Your task to perform on an android device: Search for hotels in Mexico city Image 0: 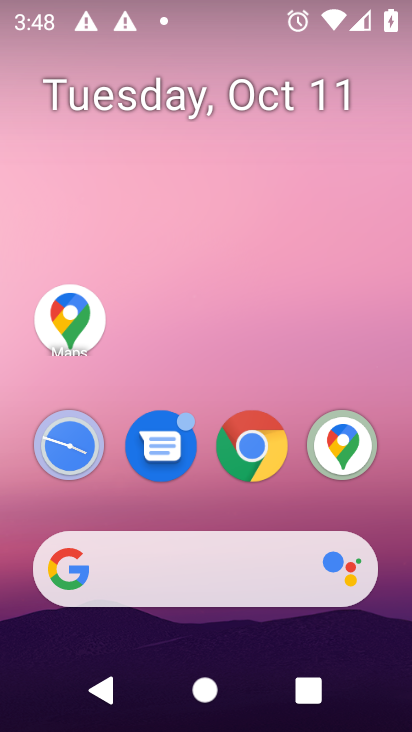
Step 0: click (256, 458)
Your task to perform on an android device: Search for hotels in Mexico city Image 1: 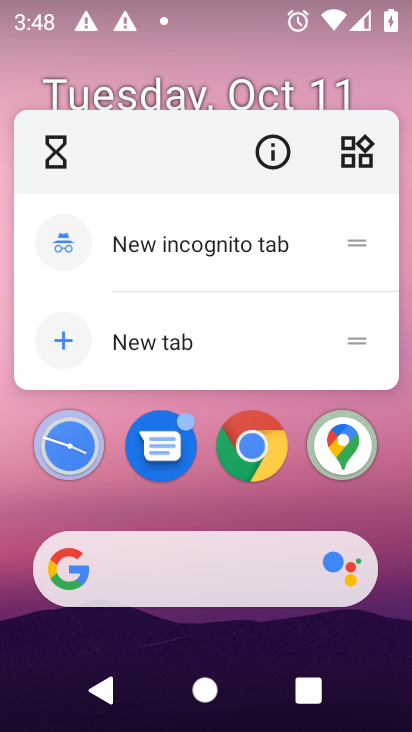
Step 1: click (256, 455)
Your task to perform on an android device: Search for hotels in Mexico city Image 2: 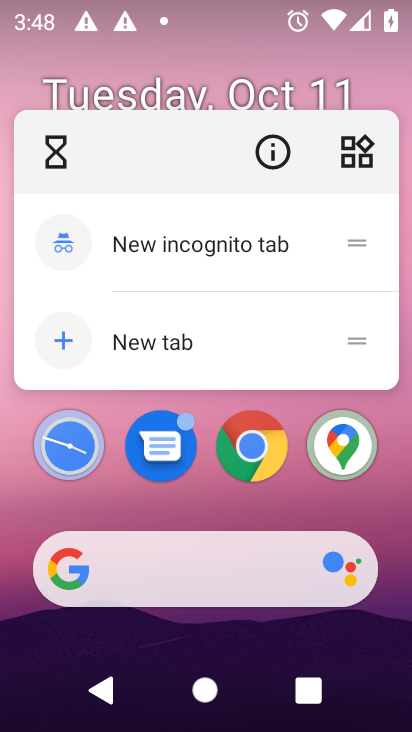
Step 2: click (256, 455)
Your task to perform on an android device: Search for hotels in Mexico city Image 3: 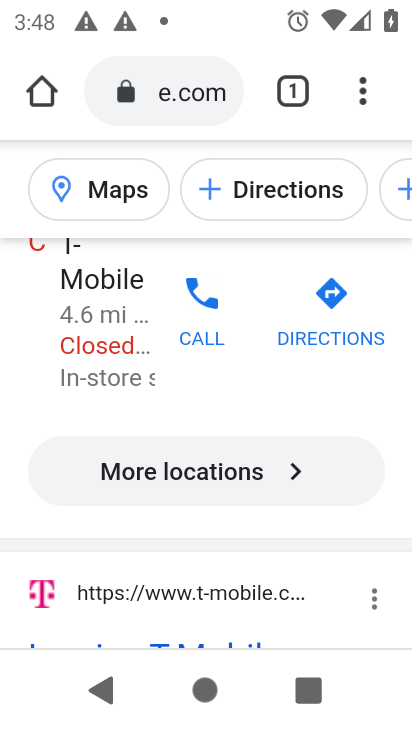
Step 3: click (195, 100)
Your task to perform on an android device: Search for hotels in Mexico city Image 4: 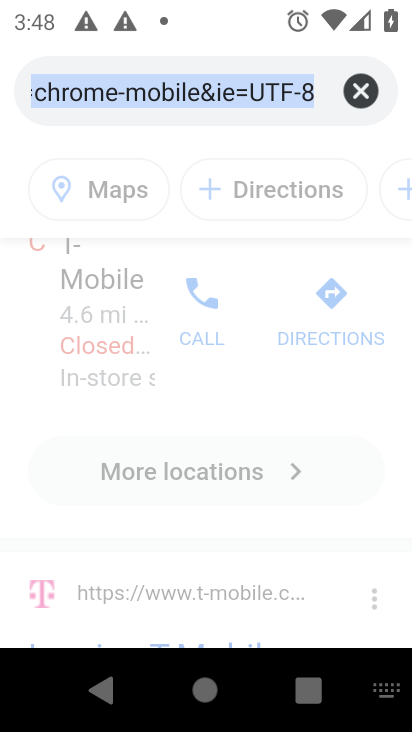
Step 4: click (369, 92)
Your task to perform on an android device: Search for hotels in Mexico city Image 5: 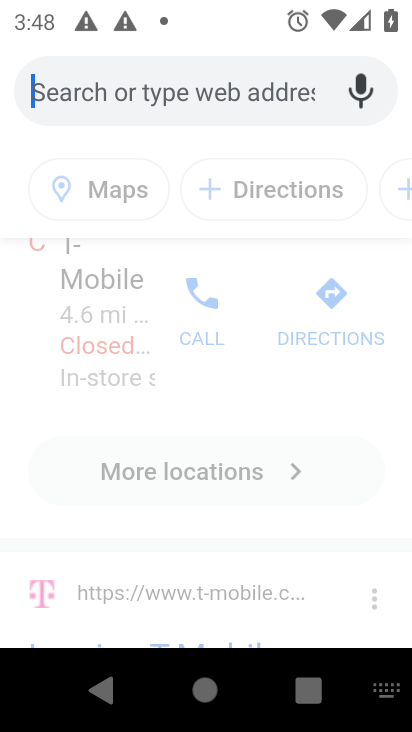
Step 5: type "hotels in Mexico city"
Your task to perform on an android device: Search for hotels in Mexico city Image 6: 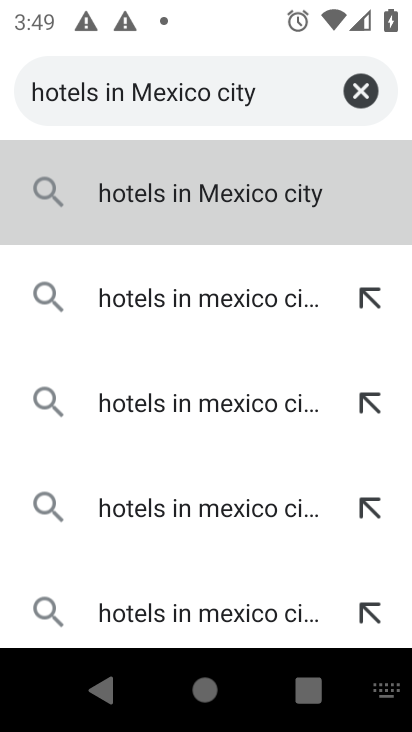
Step 6: click (156, 210)
Your task to perform on an android device: Search for hotels in Mexico city Image 7: 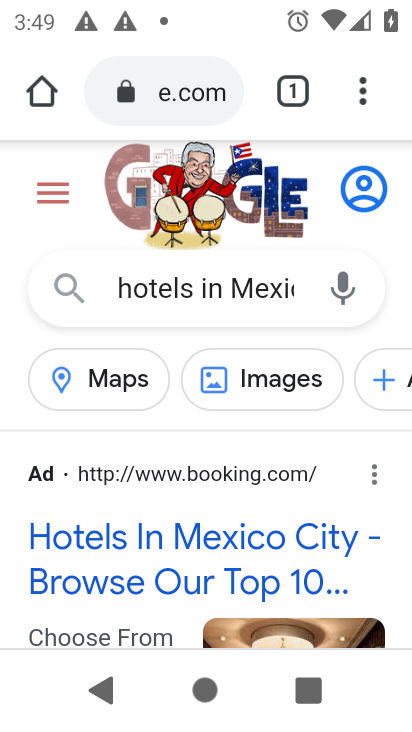
Step 7: task complete